Your task to perform on an android device: Open Google Image 0: 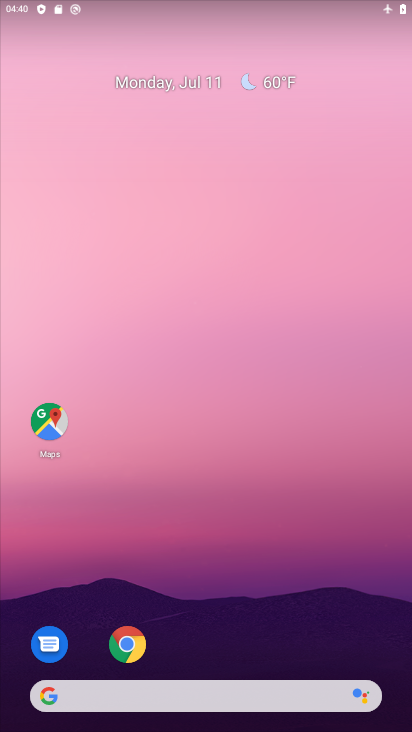
Step 0: drag from (204, 692) to (192, 273)
Your task to perform on an android device: Open Google Image 1: 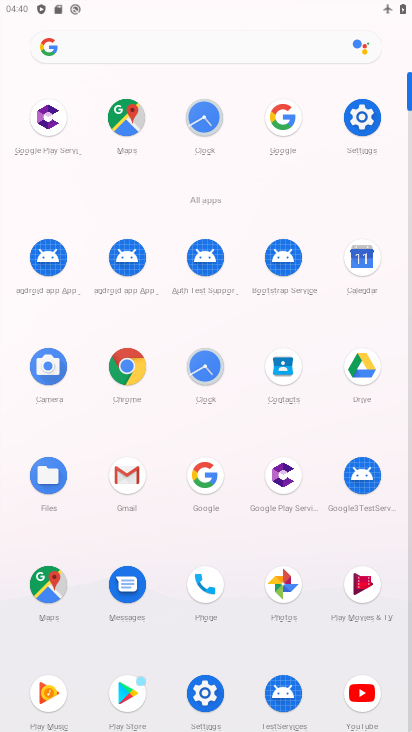
Step 1: click (208, 484)
Your task to perform on an android device: Open Google Image 2: 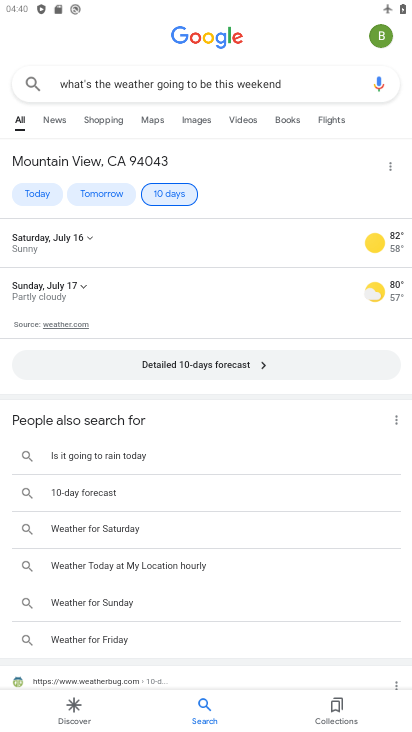
Step 2: click (311, 89)
Your task to perform on an android device: Open Google Image 3: 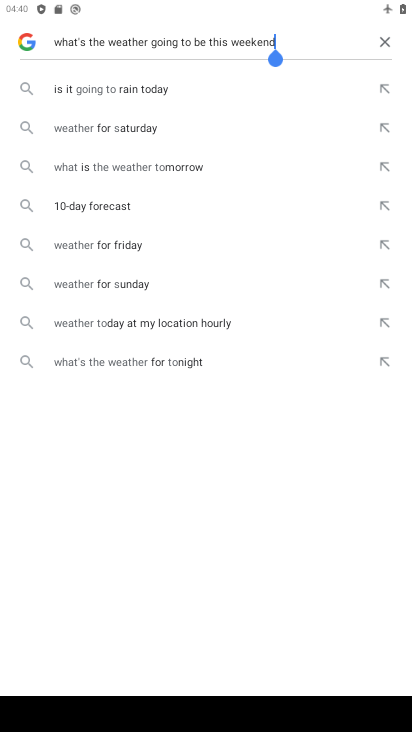
Step 3: click (377, 45)
Your task to perform on an android device: Open Google Image 4: 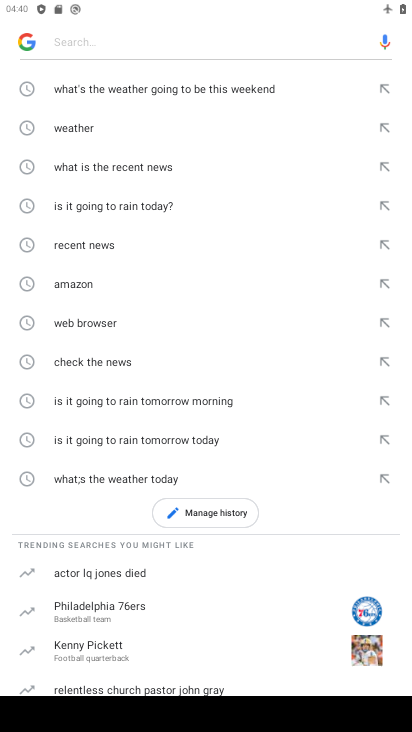
Step 4: task complete